Your task to perform on an android device: turn on translation in the chrome app Image 0: 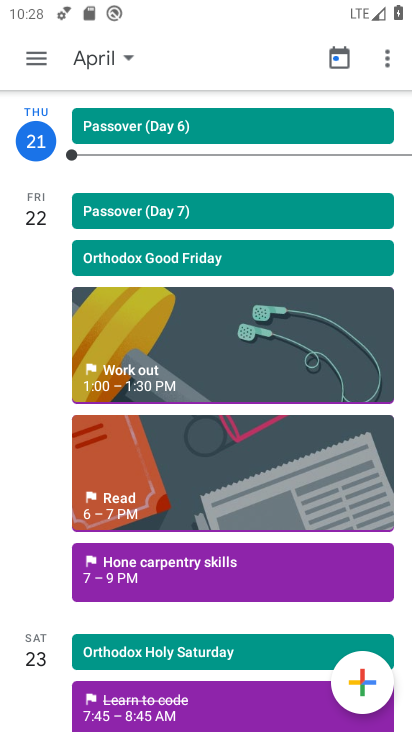
Step 0: press home button
Your task to perform on an android device: turn on translation in the chrome app Image 1: 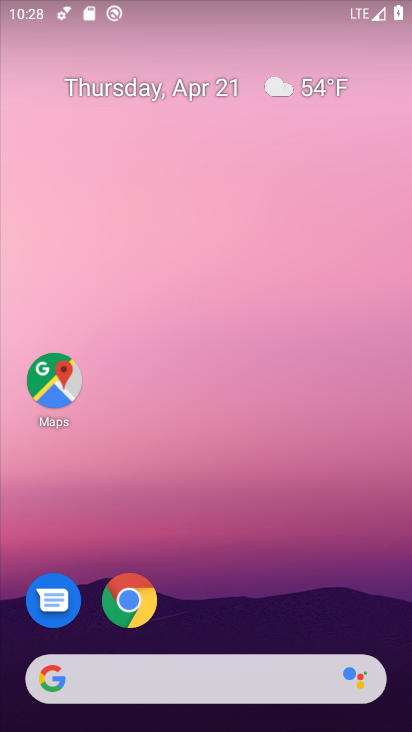
Step 1: click (134, 600)
Your task to perform on an android device: turn on translation in the chrome app Image 2: 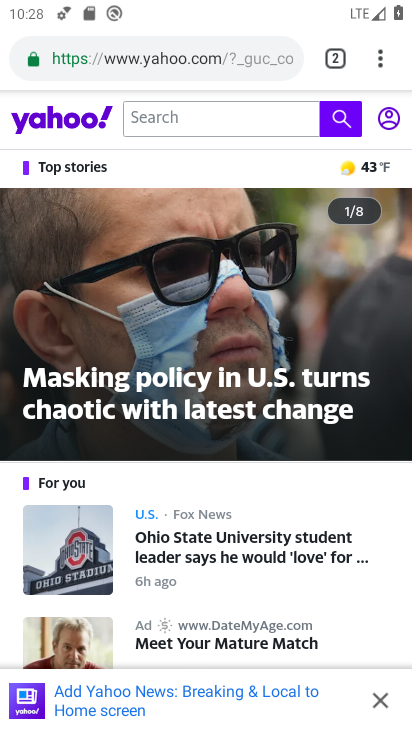
Step 2: click (379, 58)
Your task to perform on an android device: turn on translation in the chrome app Image 3: 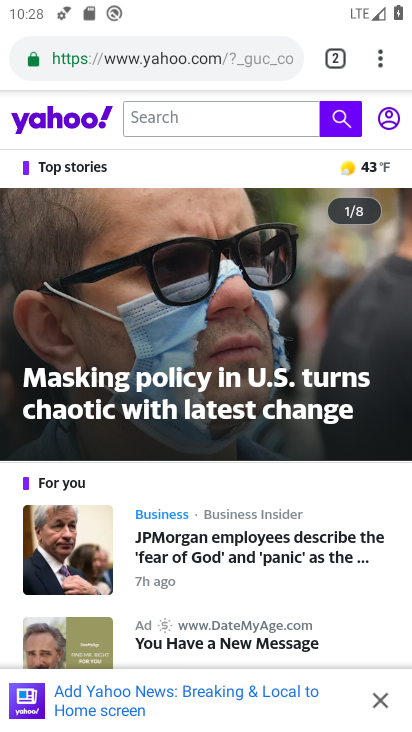
Step 3: click (383, 59)
Your task to perform on an android device: turn on translation in the chrome app Image 4: 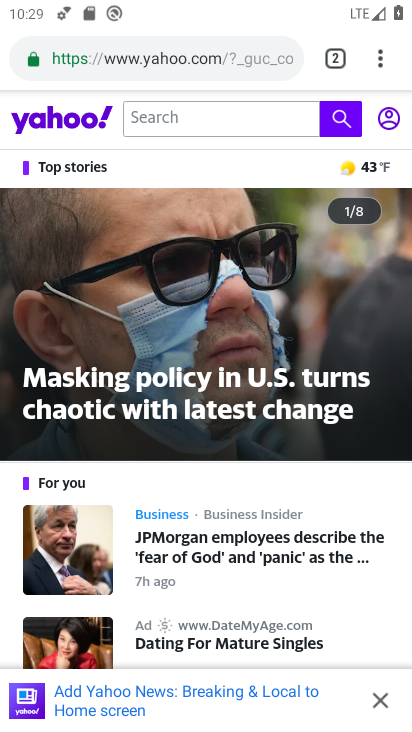
Step 4: click (373, 64)
Your task to perform on an android device: turn on translation in the chrome app Image 5: 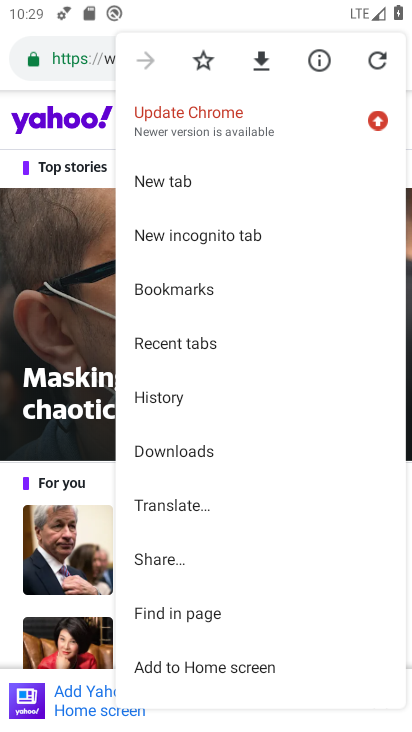
Step 5: drag from (296, 586) to (223, 179)
Your task to perform on an android device: turn on translation in the chrome app Image 6: 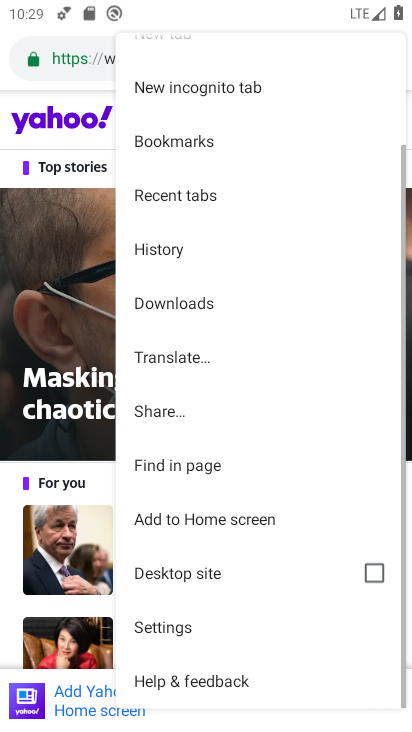
Step 6: click (215, 630)
Your task to perform on an android device: turn on translation in the chrome app Image 7: 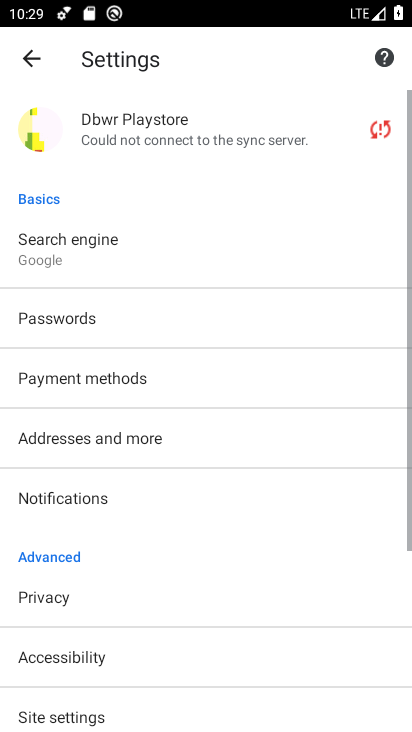
Step 7: drag from (148, 505) to (119, 228)
Your task to perform on an android device: turn on translation in the chrome app Image 8: 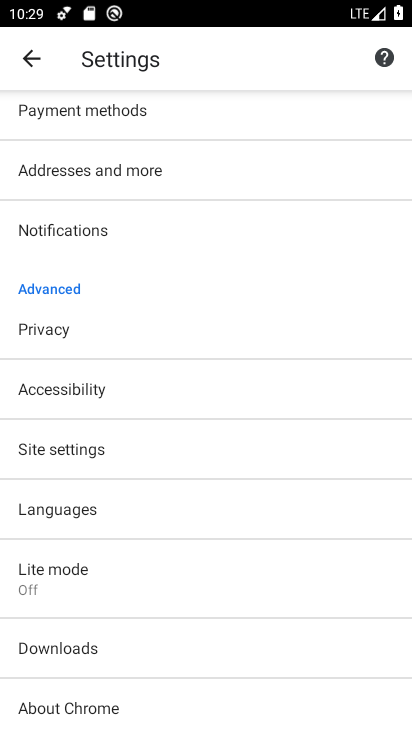
Step 8: click (111, 510)
Your task to perform on an android device: turn on translation in the chrome app Image 9: 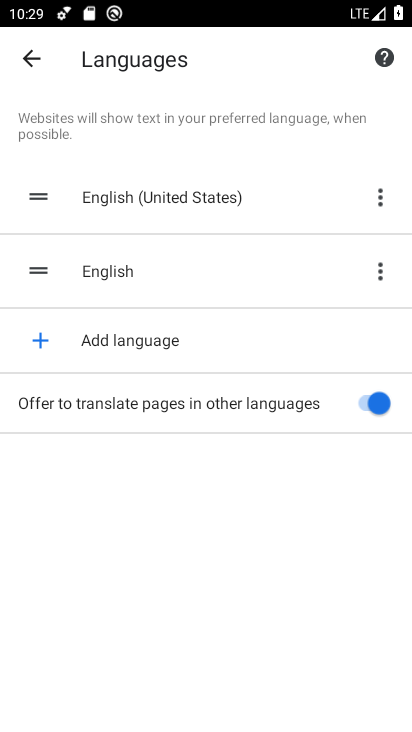
Step 9: task complete